Your task to perform on an android device: Open Google Chrome Image 0: 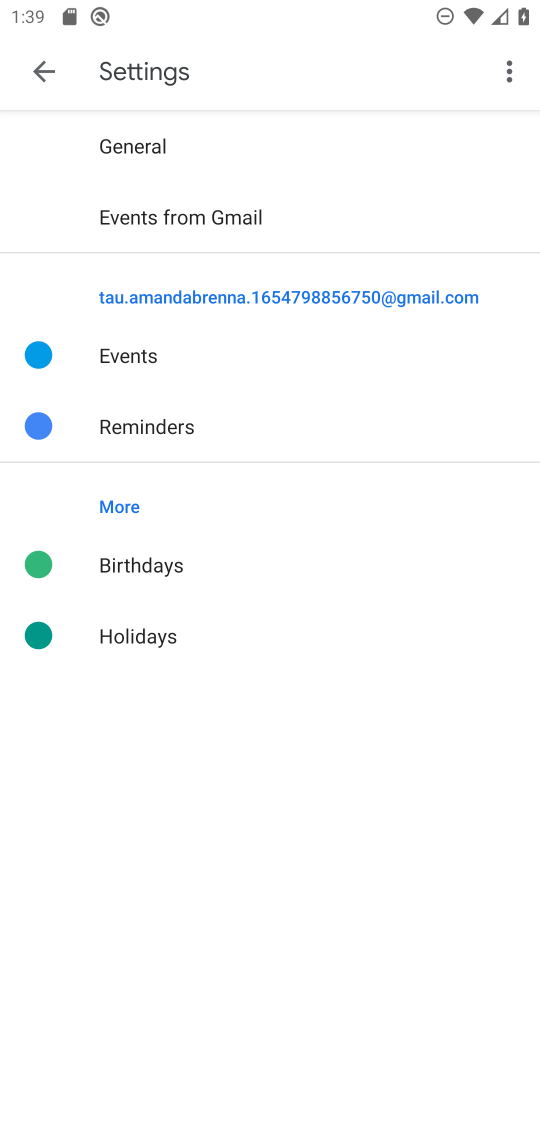
Step 0: press home button
Your task to perform on an android device: Open Google Chrome Image 1: 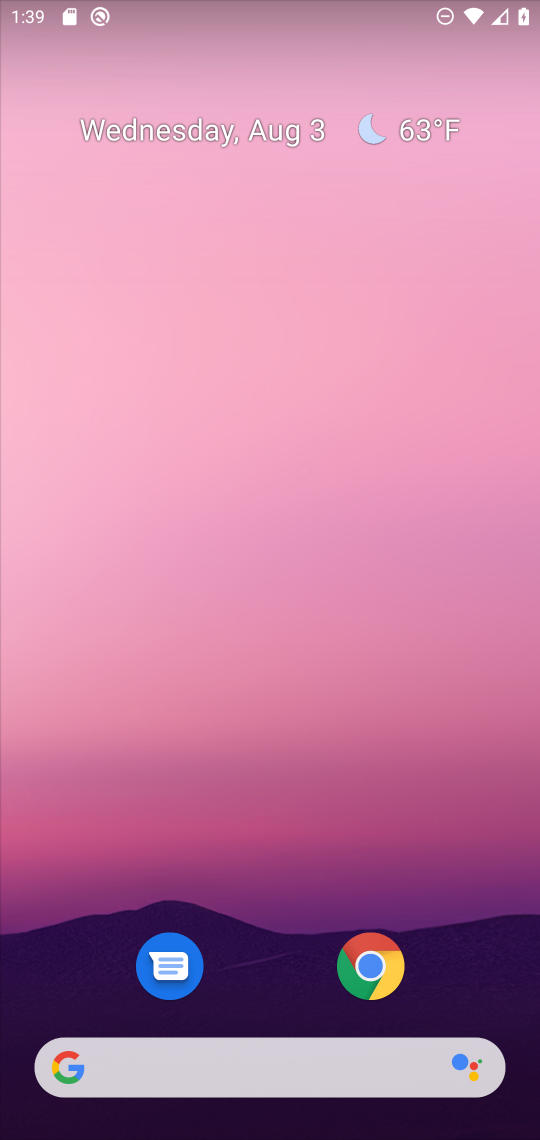
Step 1: click (371, 957)
Your task to perform on an android device: Open Google Chrome Image 2: 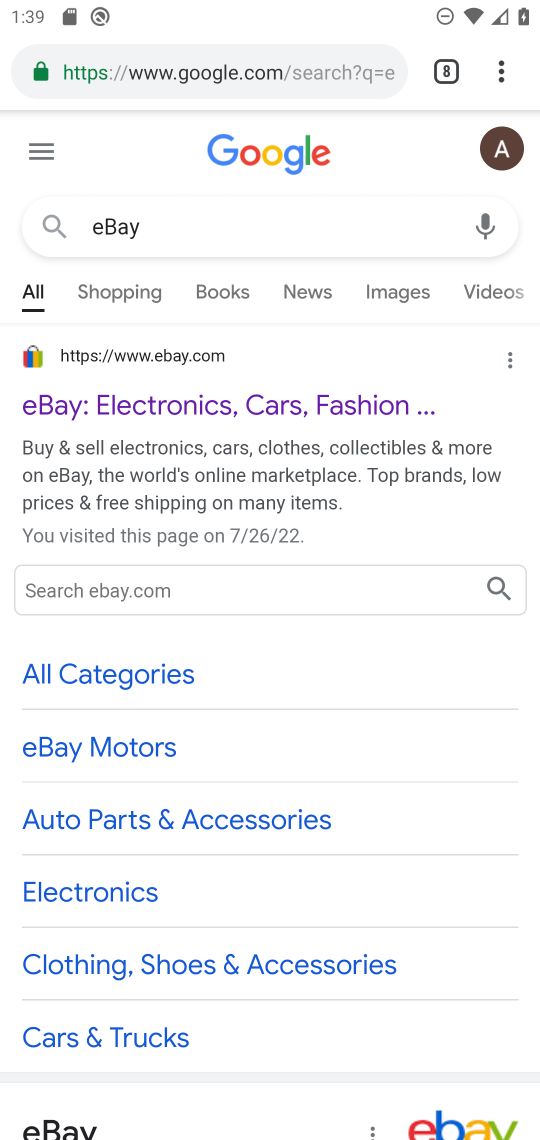
Step 2: task complete